Your task to perform on an android device: Open eBay Image 0: 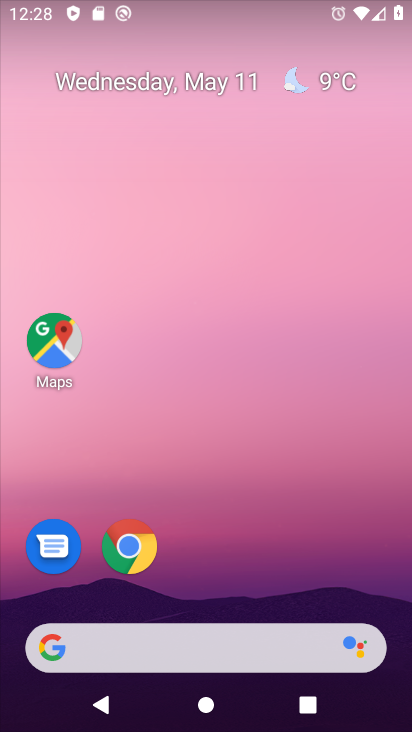
Step 0: drag from (187, 379) to (187, 276)
Your task to perform on an android device: Open eBay Image 1: 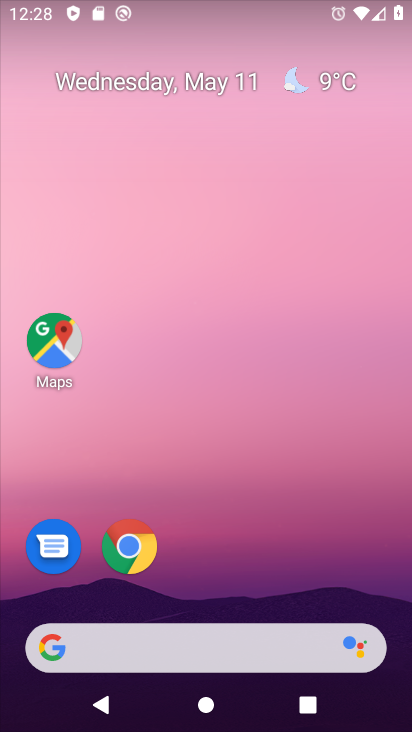
Step 1: drag from (172, 599) to (314, 48)
Your task to perform on an android device: Open eBay Image 2: 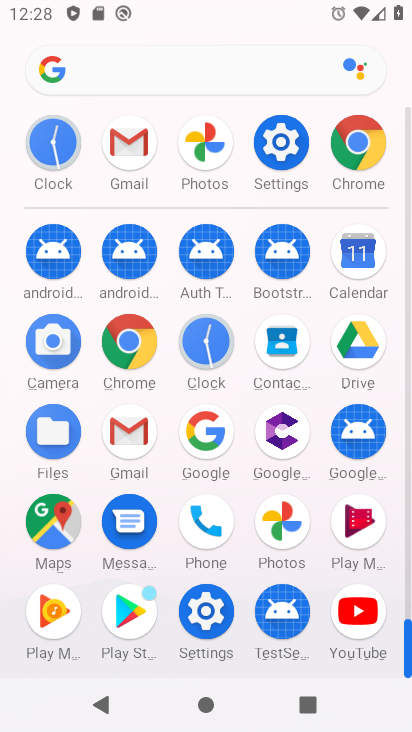
Step 2: click (189, 74)
Your task to perform on an android device: Open eBay Image 3: 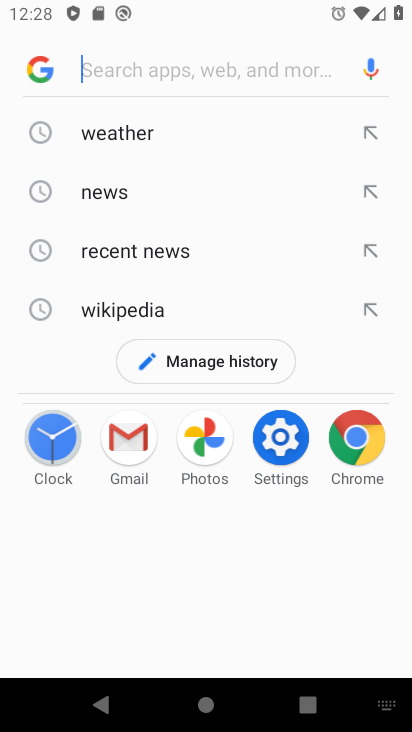
Step 3: type "ebay"
Your task to perform on an android device: Open eBay Image 4: 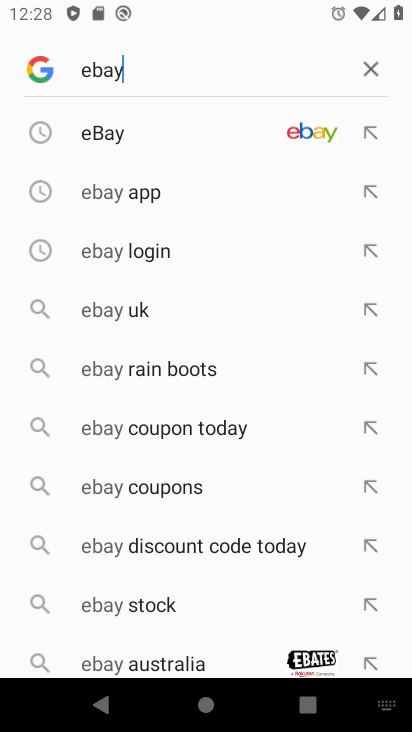
Step 4: click (139, 129)
Your task to perform on an android device: Open eBay Image 5: 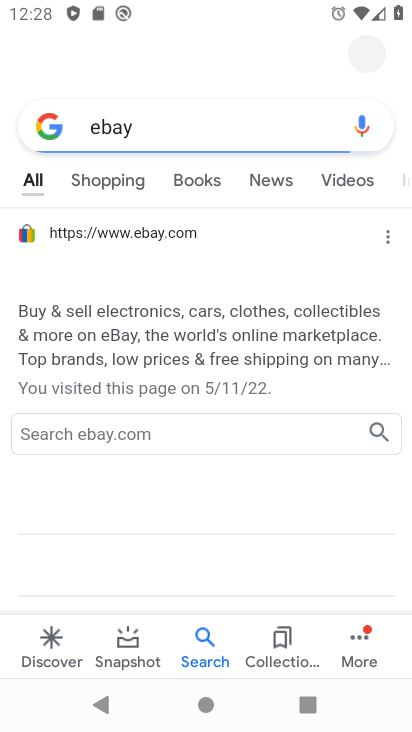
Step 5: drag from (247, 566) to (294, 71)
Your task to perform on an android device: Open eBay Image 6: 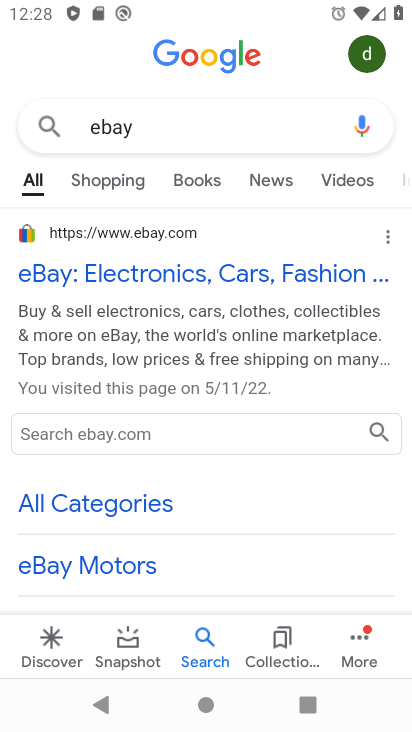
Step 6: drag from (237, 372) to (241, 265)
Your task to perform on an android device: Open eBay Image 7: 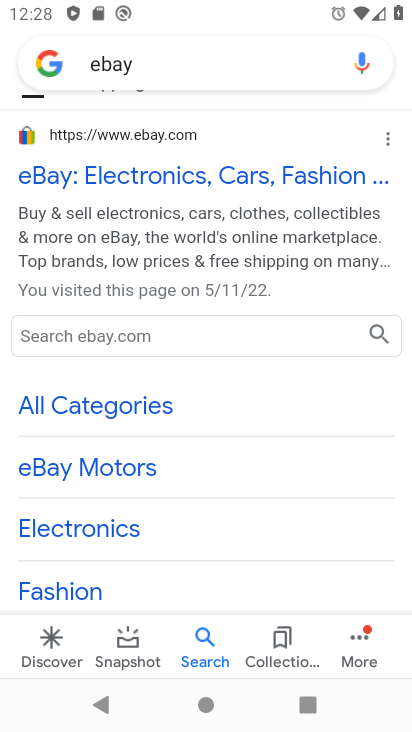
Step 7: click (191, 189)
Your task to perform on an android device: Open eBay Image 8: 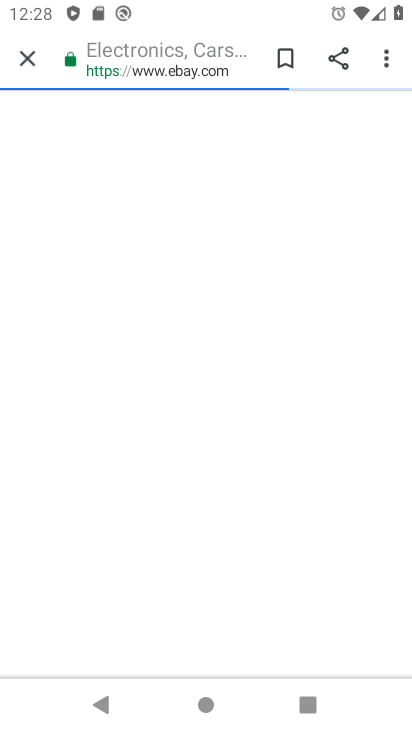
Step 8: task complete